Your task to perform on an android device: Go to sound settings Image 0: 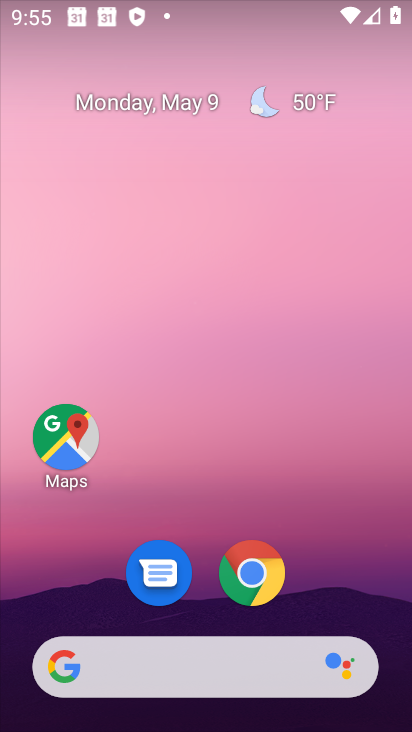
Step 0: drag from (339, 598) to (274, 148)
Your task to perform on an android device: Go to sound settings Image 1: 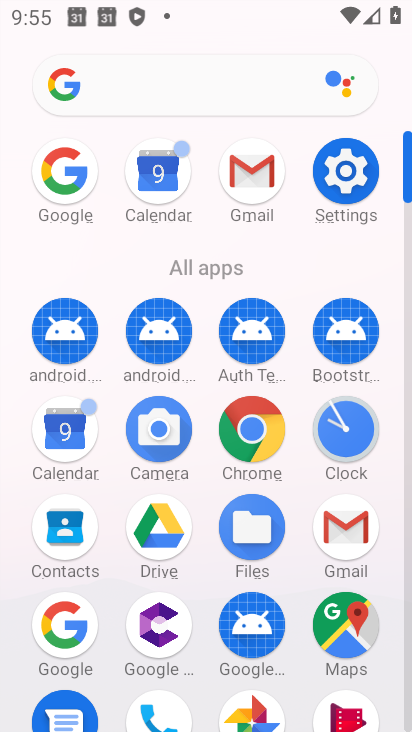
Step 1: click (341, 171)
Your task to perform on an android device: Go to sound settings Image 2: 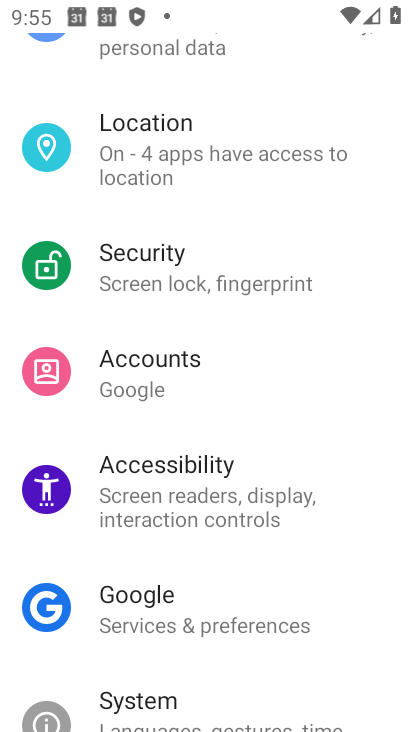
Step 2: drag from (262, 266) to (275, 652)
Your task to perform on an android device: Go to sound settings Image 3: 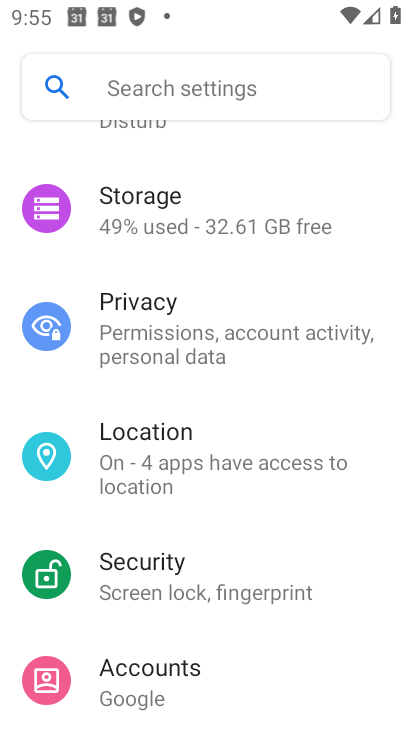
Step 3: drag from (297, 295) to (273, 655)
Your task to perform on an android device: Go to sound settings Image 4: 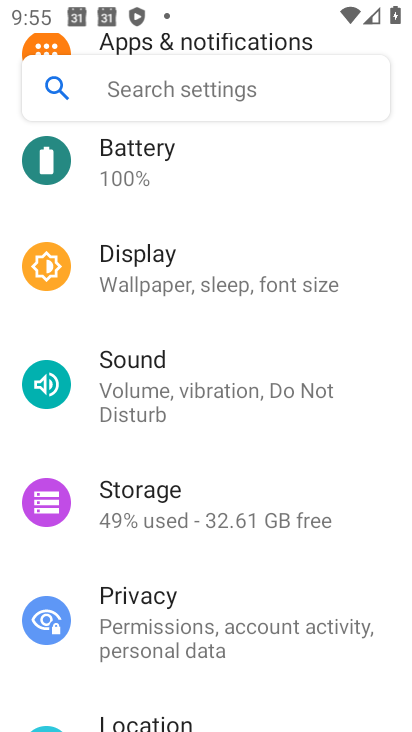
Step 4: click (191, 367)
Your task to perform on an android device: Go to sound settings Image 5: 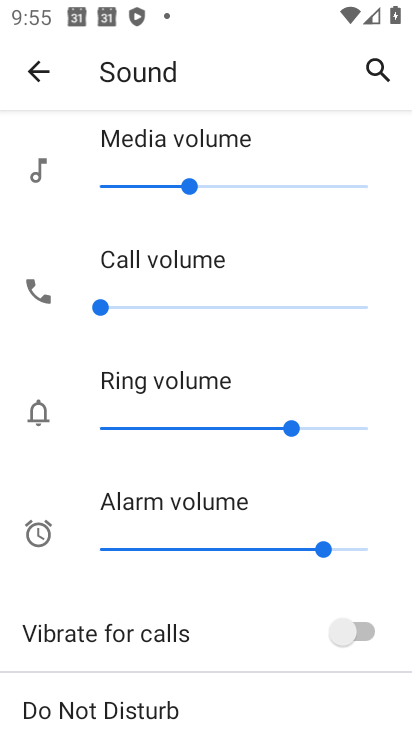
Step 5: task complete